Your task to perform on an android device: Open notification settings Image 0: 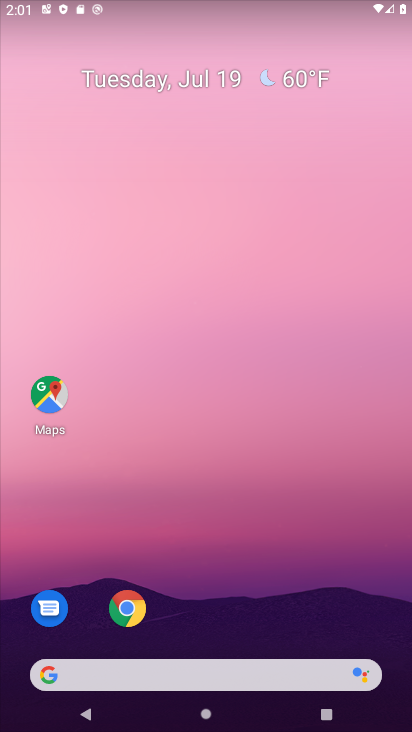
Step 0: drag from (321, 645) to (284, 39)
Your task to perform on an android device: Open notification settings Image 1: 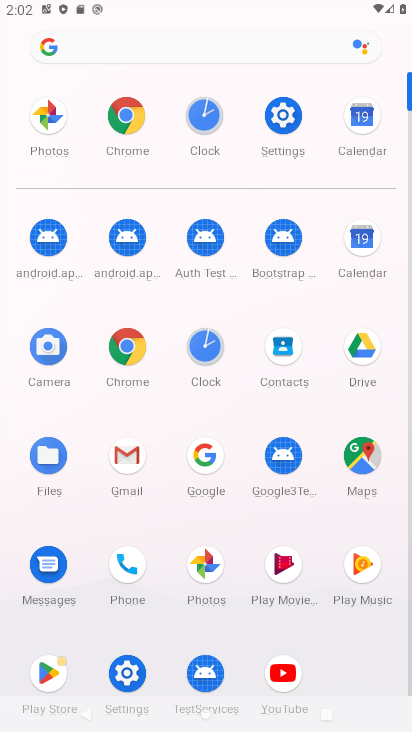
Step 1: click (268, 121)
Your task to perform on an android device: Open notification settings Image 2: 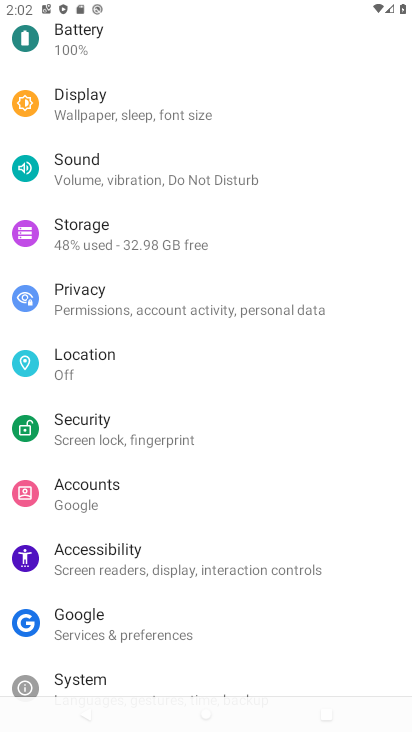
Step 2: drag from (209, 178) to (336, 717)
Your task to perform on an android device: Open notification settings Image 3: 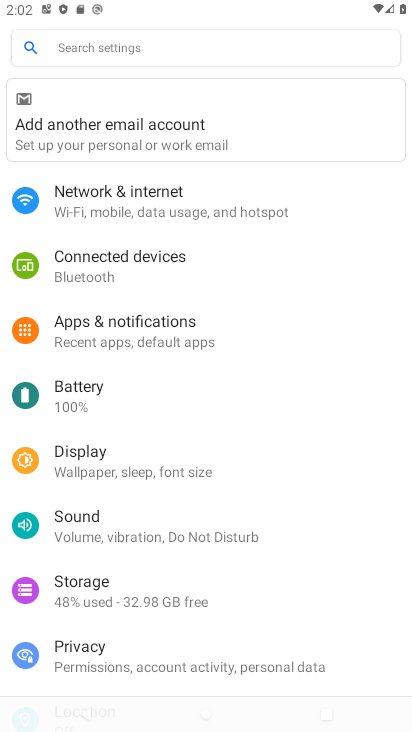
Step 3: click (123, 337)
Your task to perform on an android device: Open notification settings Image 4: 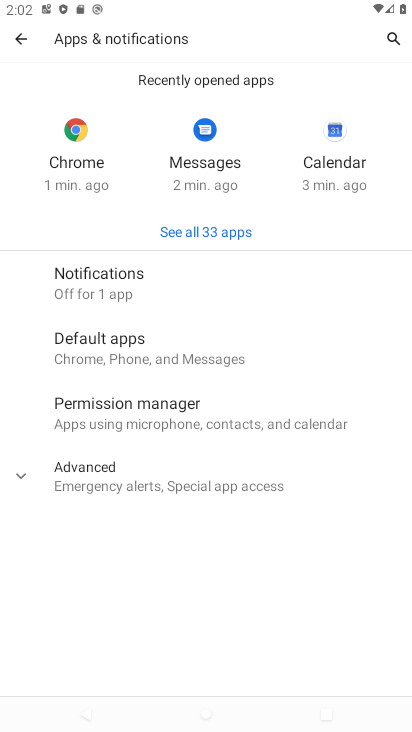
Step 4: task complete